Your task to perform on an android device: open app "Microsoft Excel" (install if not already installed) Image 0: 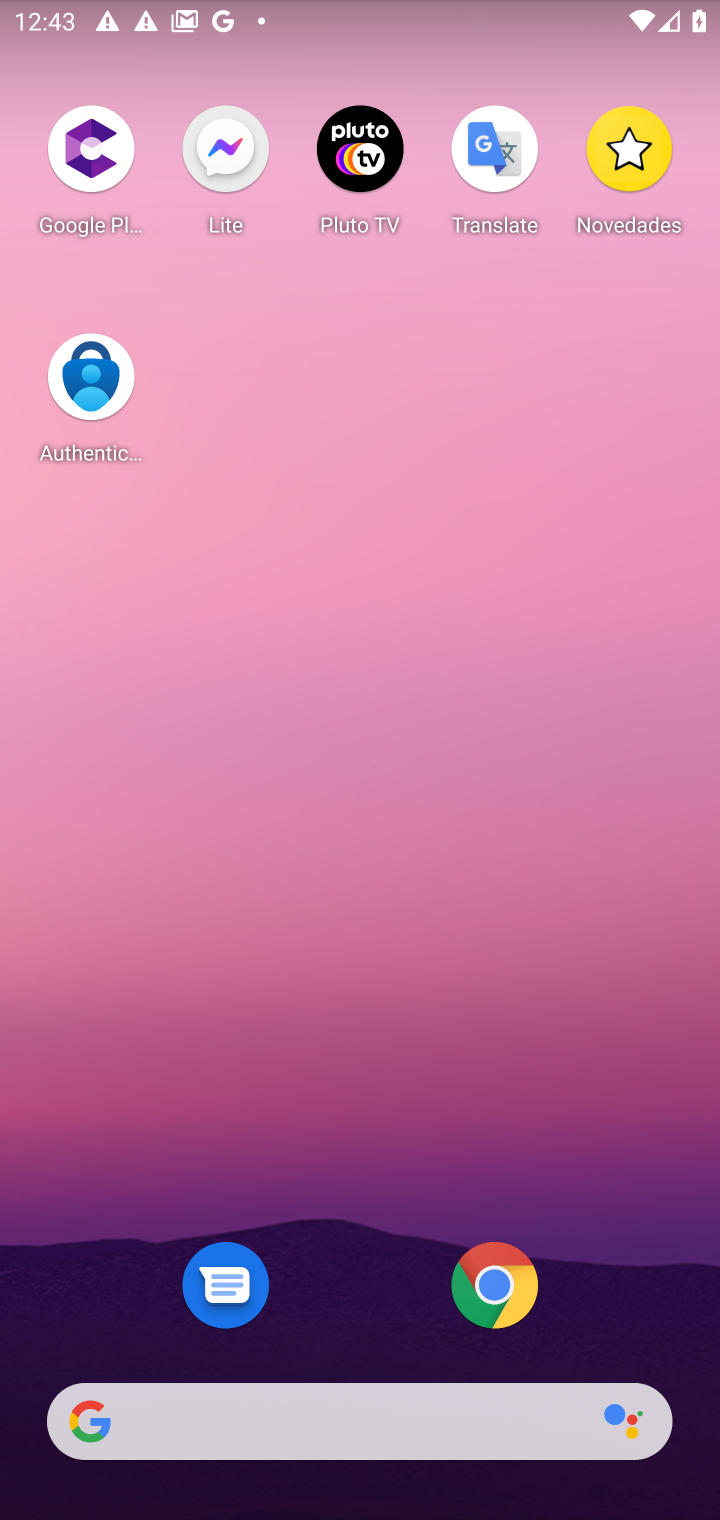
Step 0: drag from (520, 1161) to (639, 234)
Your task to perform on an android device: open app "Microsoft Excel" (install if not already installed) Image 1: 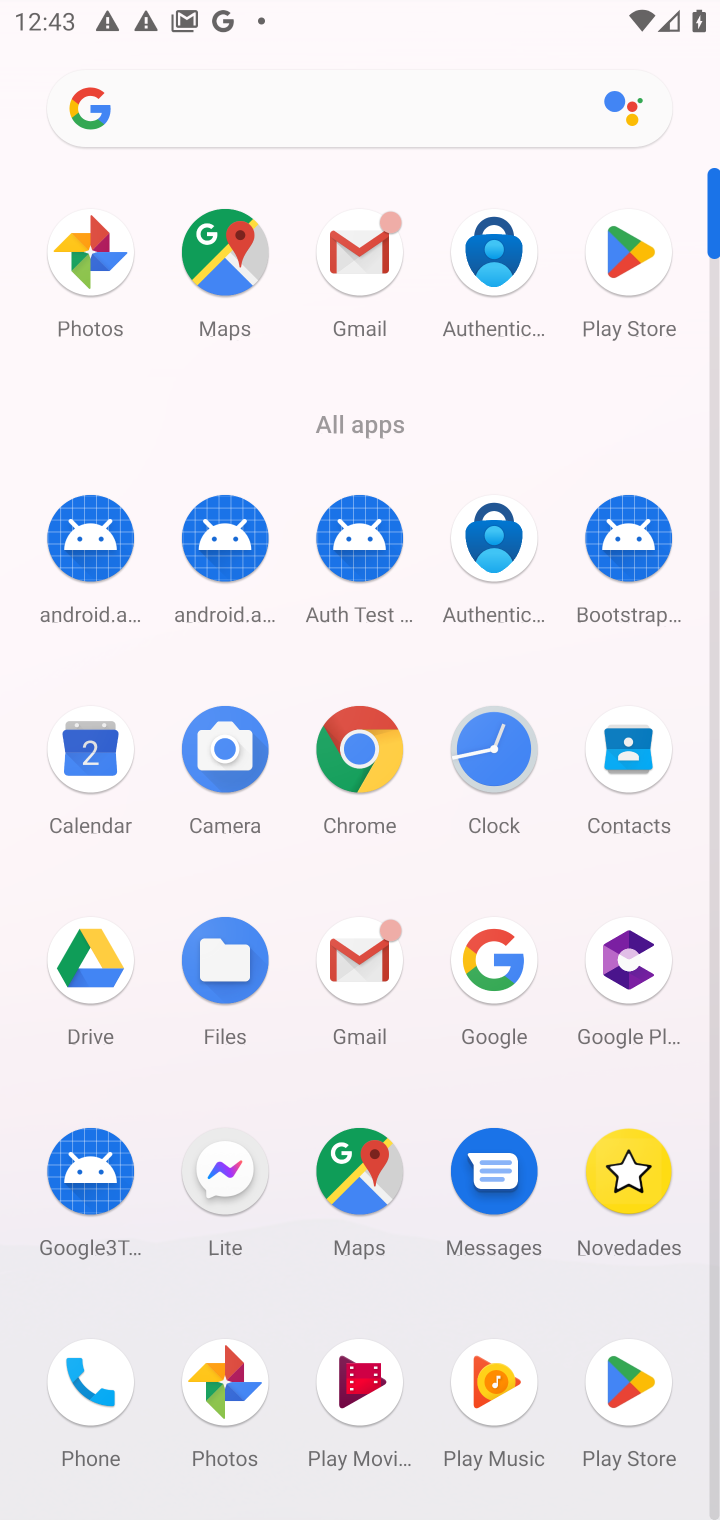
Step 1: click (633, 1394)
Your task to perform on an android device: open app "Microsoft Excel" (install if not already installed) Image 2: 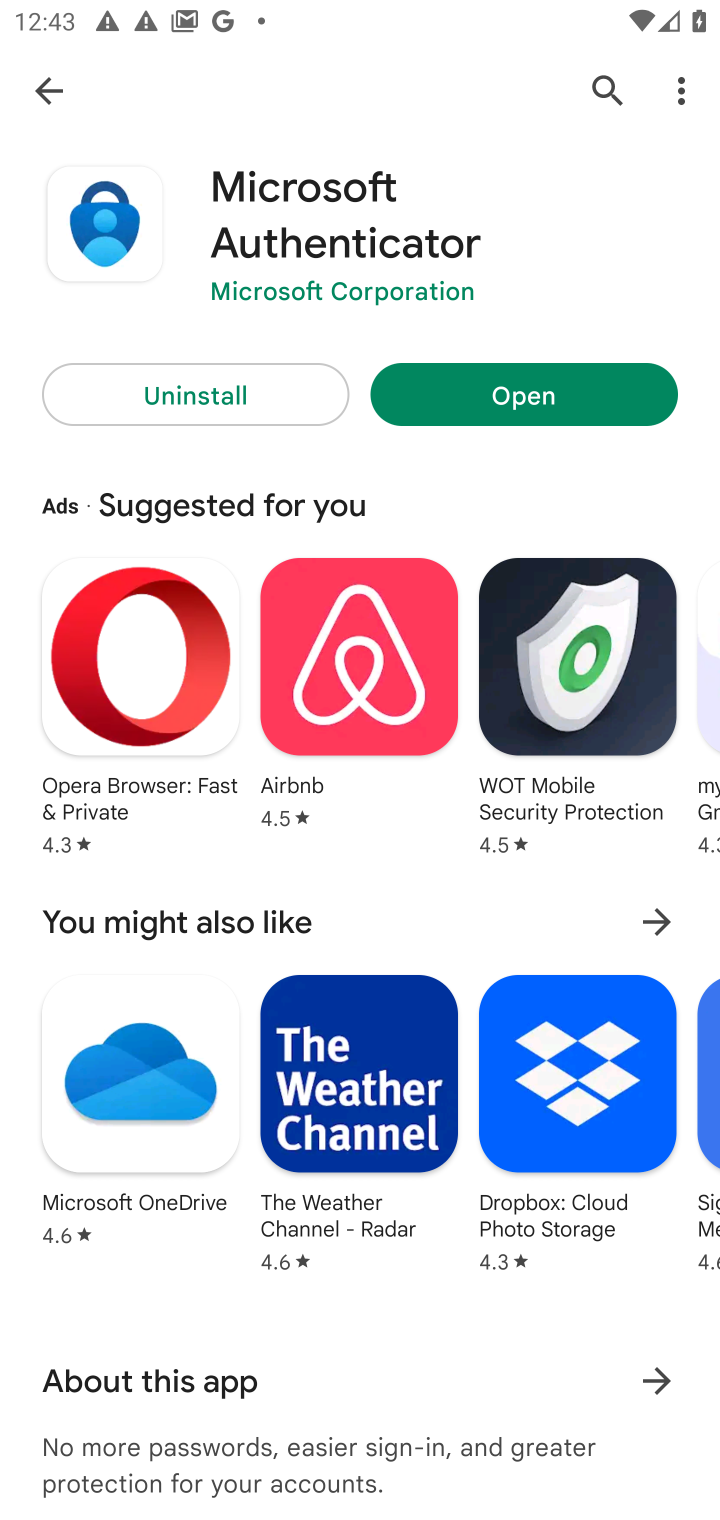
Step 2: click (603, 76)
Your task to perform on an android device: open app "Microsoft Excel" (install if not already installed) Image 3: 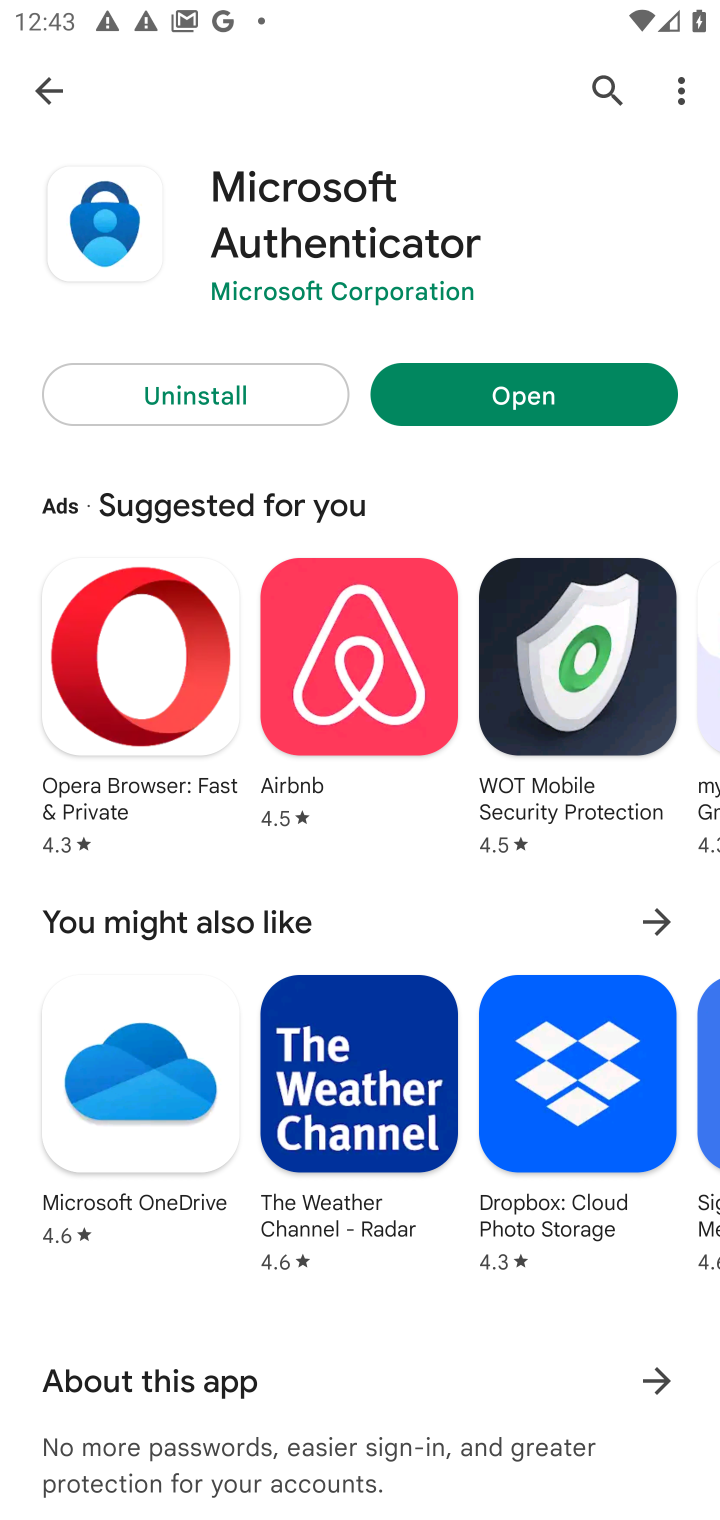
Step 3: click (603, 76)
Your task to perform on an android device: open app "Microsoft Excel" (install if not already installed) Image 4: 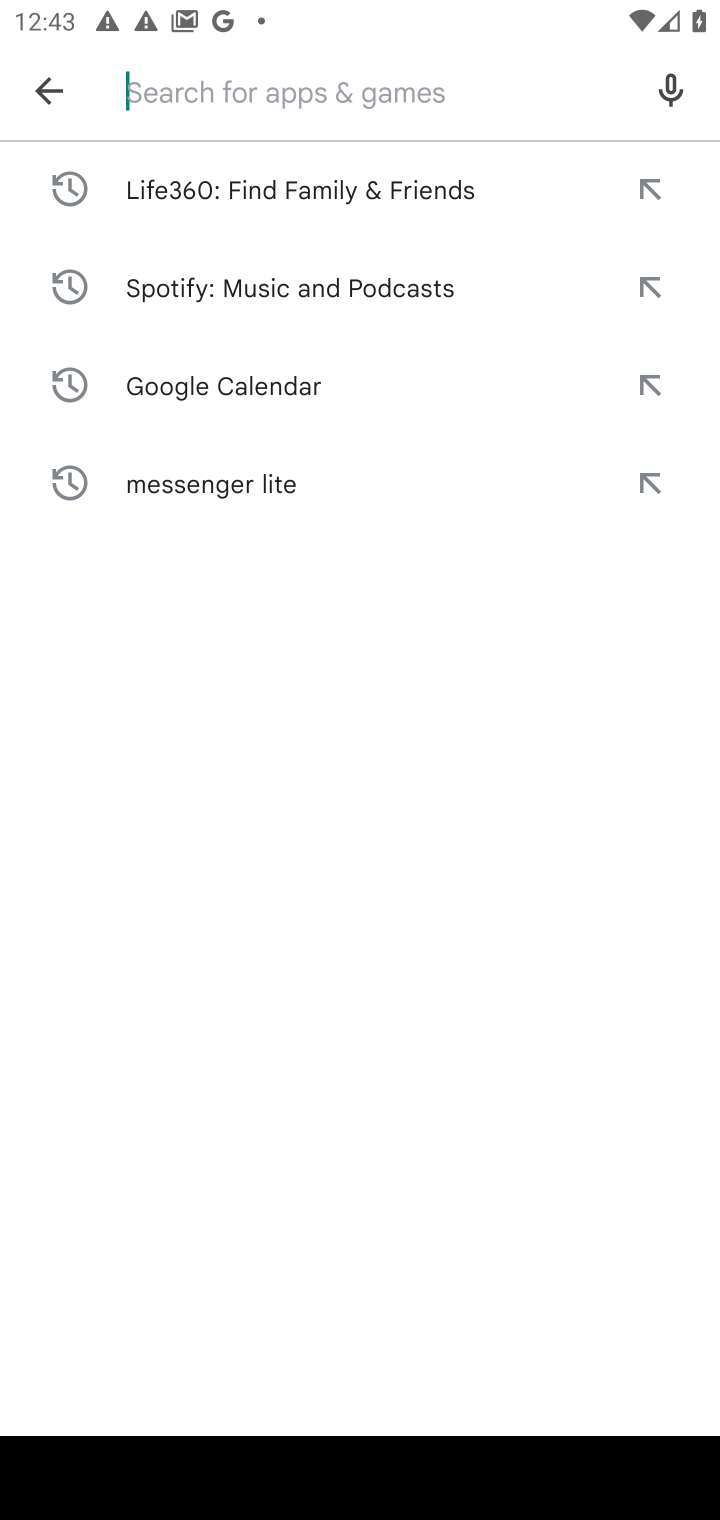
Step 4: type "Microsoft Excel"
Your task to perform on an android device: open app "Microsoft Excel" (install if not already installed) Image 5: 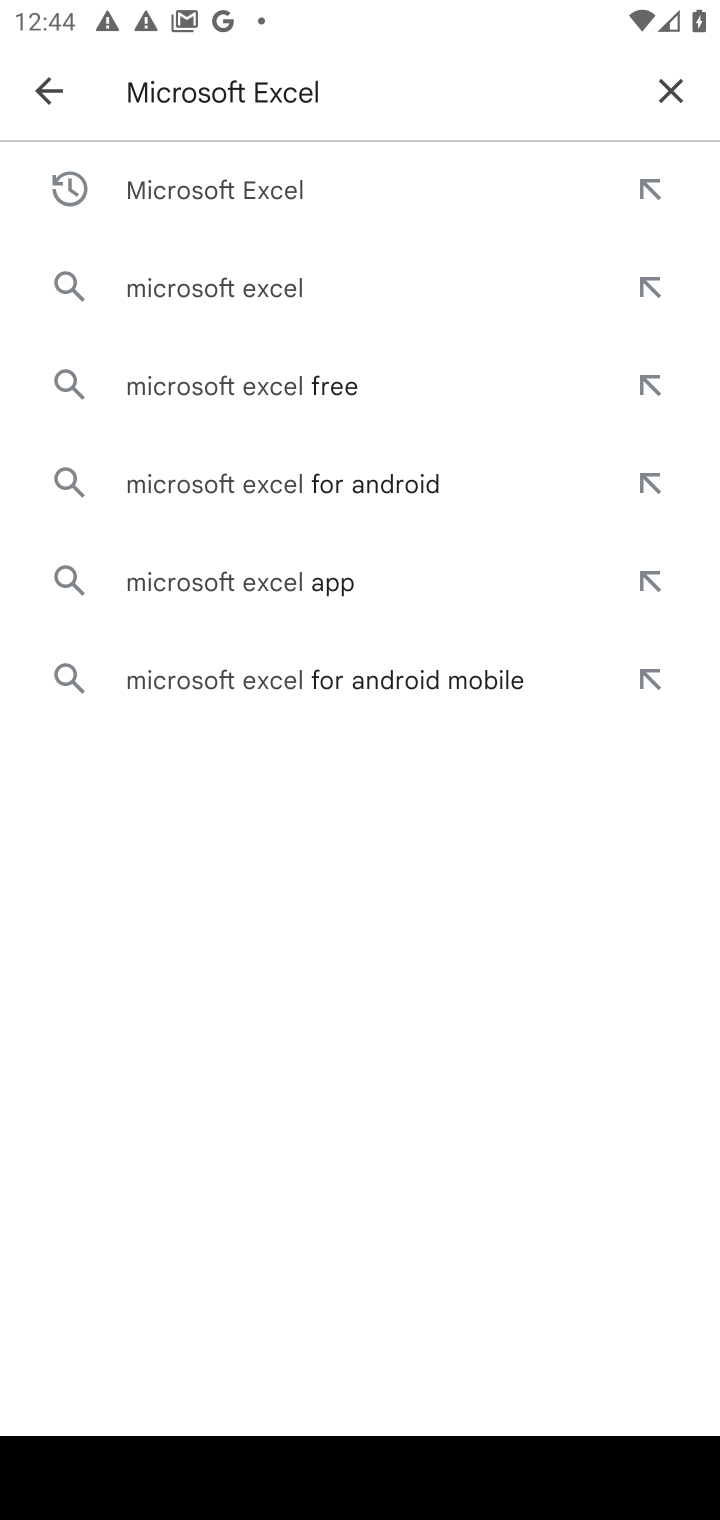
Step 5: press enter
Your task to perform on an android device: open app "Microsoft Excel" (install if not already installed) Image 6: 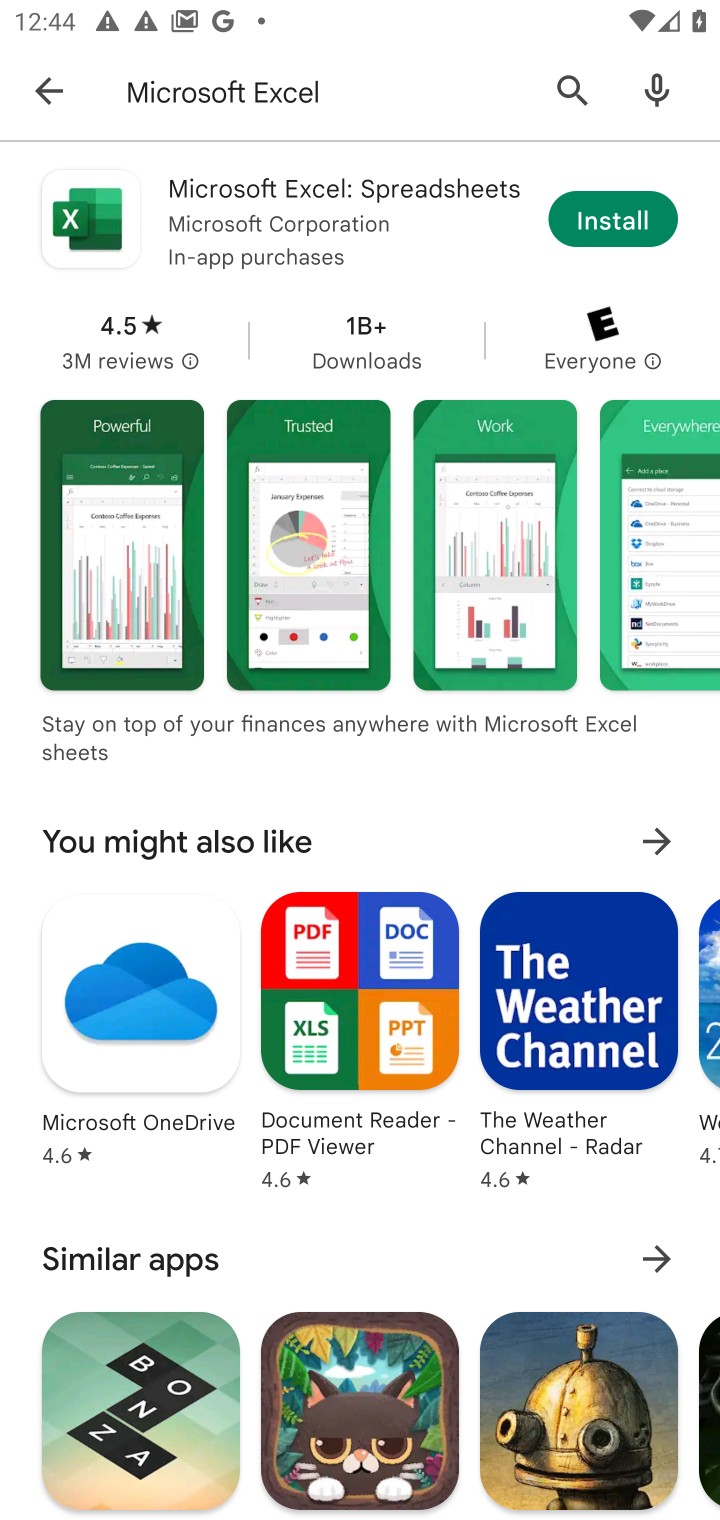
Step 6: click (640, 235)
Your task to perform on an android device: open app "Microsoft Excel" (install if not already installed) Image 7: 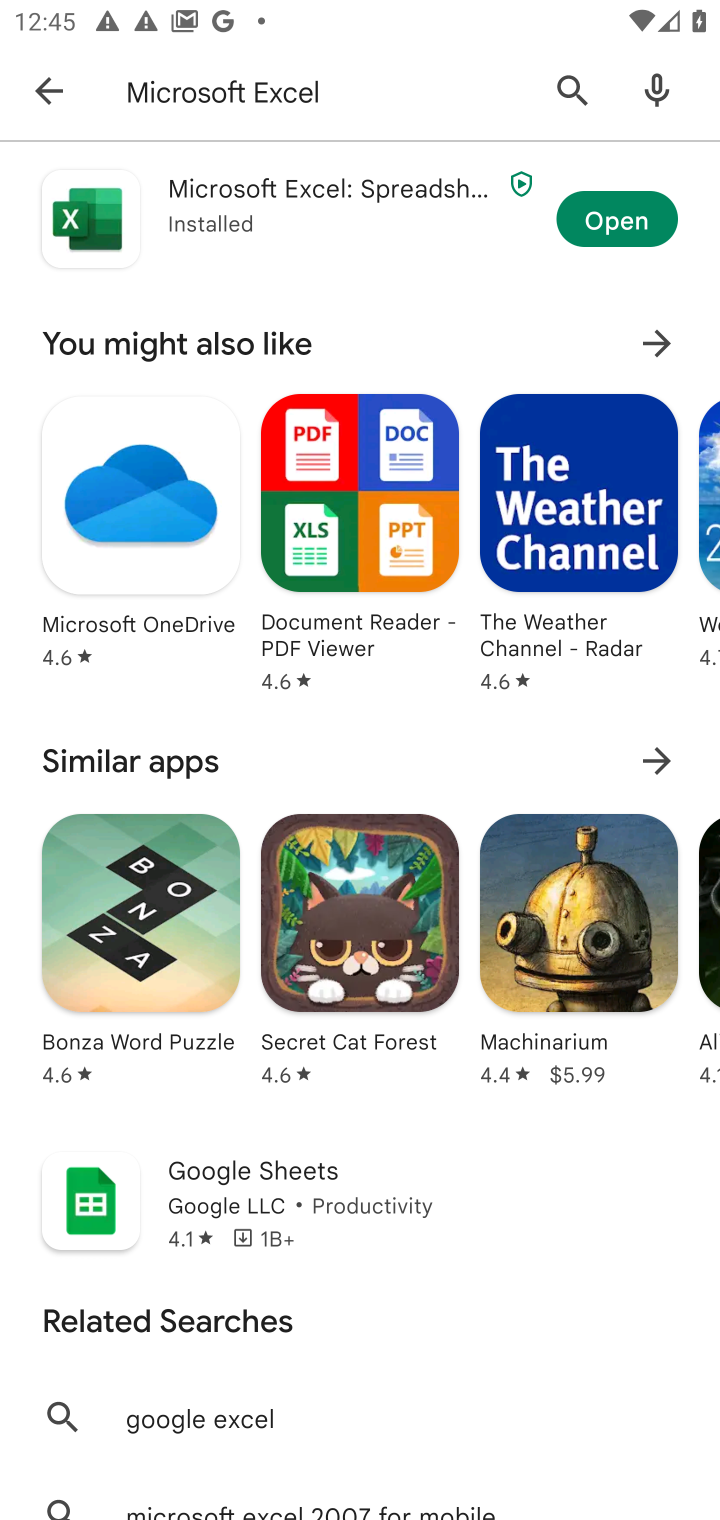
Step 7: click (576, 208)
Your task to perform on an android device: open app "Microsoft Excel" (install if not already installed) Image 8: 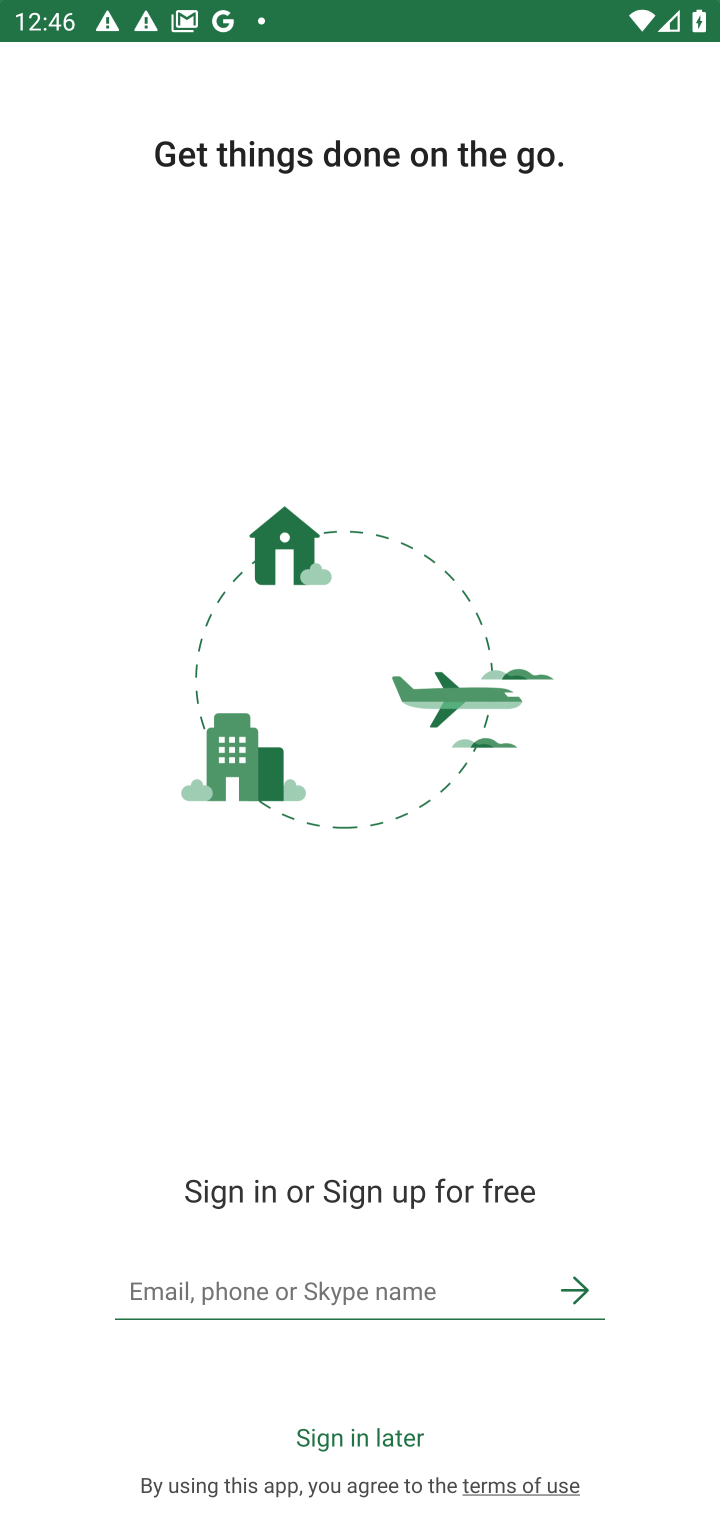
Step 8: task complete